Your task to perform on an android device: open device folders in google photos Image 0: 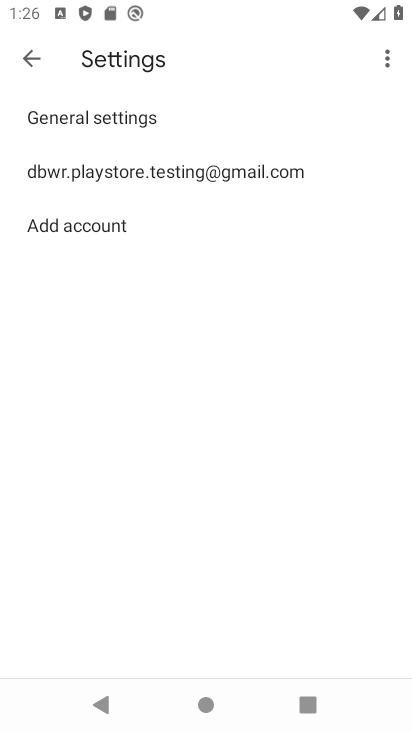
Step 0: press home button
Your task to perform on an android device: open device folders in google photos Image 1: 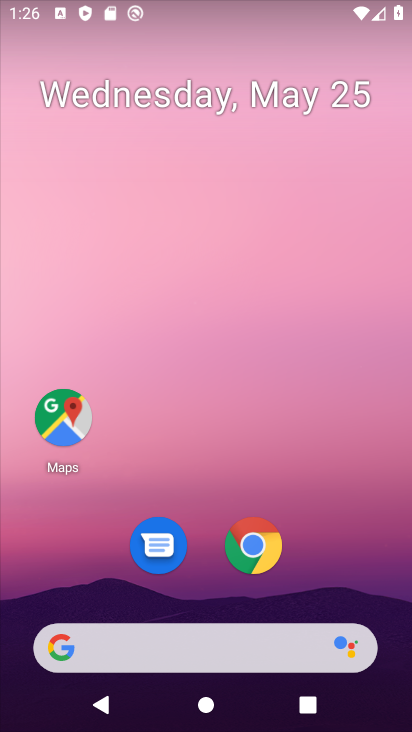
Step 1: drag from (351, 600) to (314, 226)
Your task to perform on an android device: open device folders in google photos Image 2: 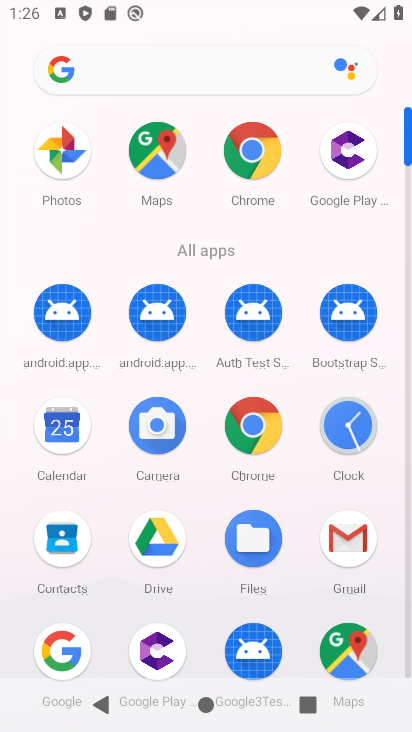
Step 2: click (59, 173)
Your task to perform on an android device: open device folders in google photos Image 3: 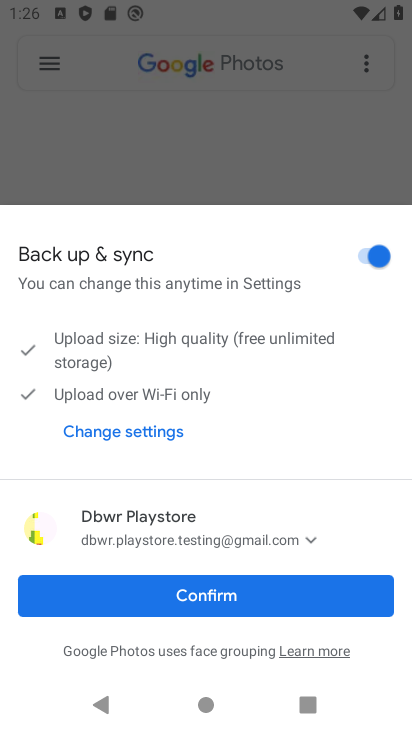
Step 3: click (305, 586)
Your task to perform on an android device: open device folders in google photos Image 4: 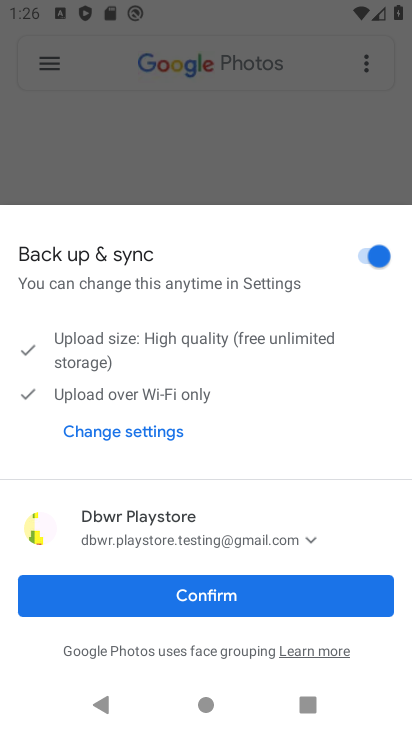
Step 4: click (305, 586)
Your task to perform on an android device: open device folders in google photos Image 5: 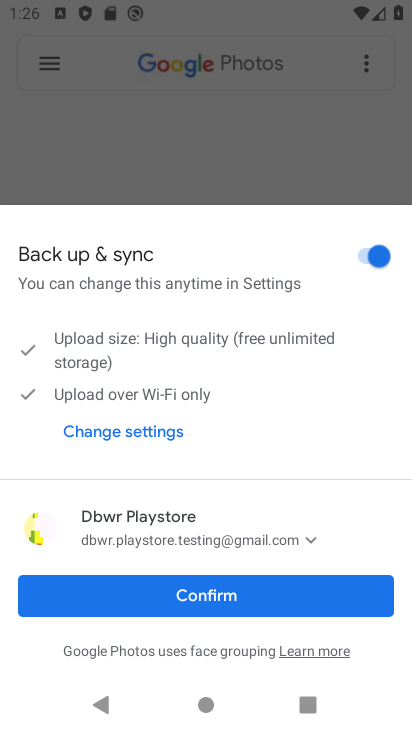
Step 5: click (305, 586)
Your task to perform on an android device: open device folders in google photos Image 6: 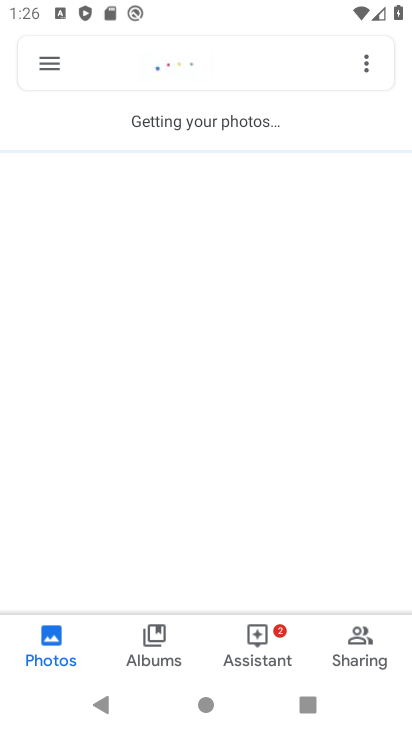
Step 6: click (47, 74)
Your task to perform on an android device: open device folders in google photos Image 7: 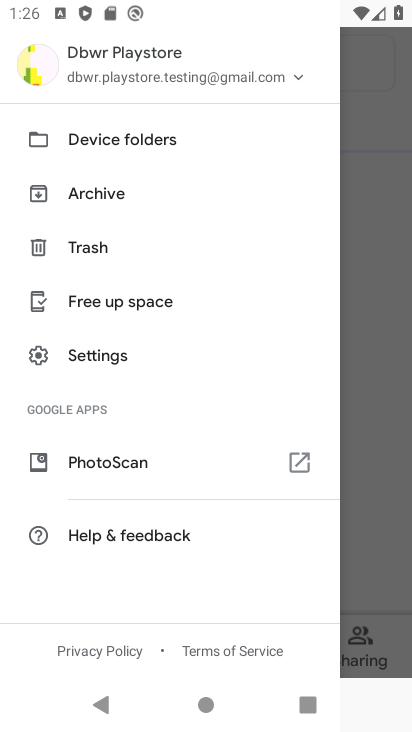
Step 7: click (86, 159)
Your task to perform on an android device: open device folders in google photos Image 8: 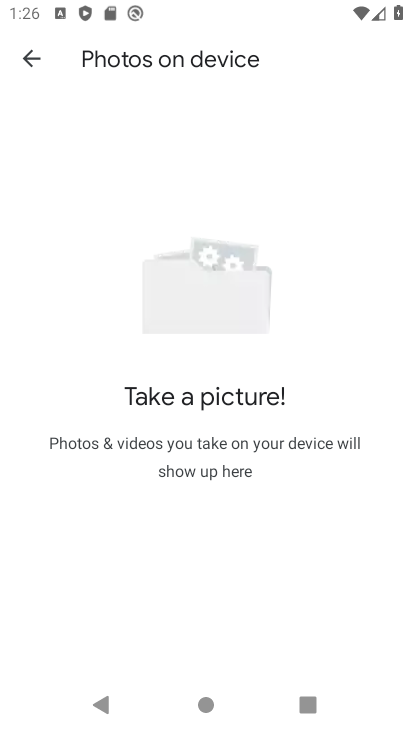
Step 8: task complete